Your task to perform on an android device: Search for Italian restaurants on Maps Image 0: 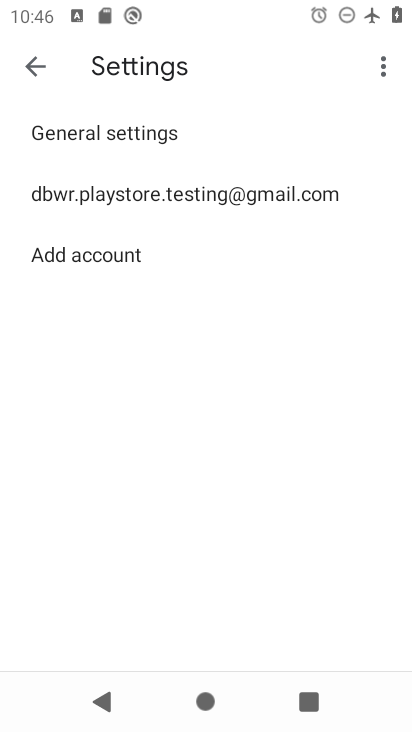
Step 0: press home button
Your task to perform on an android device: Search for Italian restaurants on Maps Image 1: 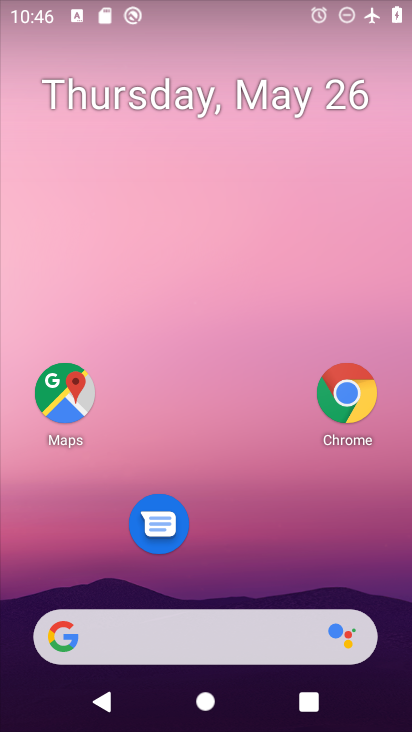
Step 1: click (69, 408)
Your task to perform on an android device: Search for Italian restaurants on Maps Image 2: 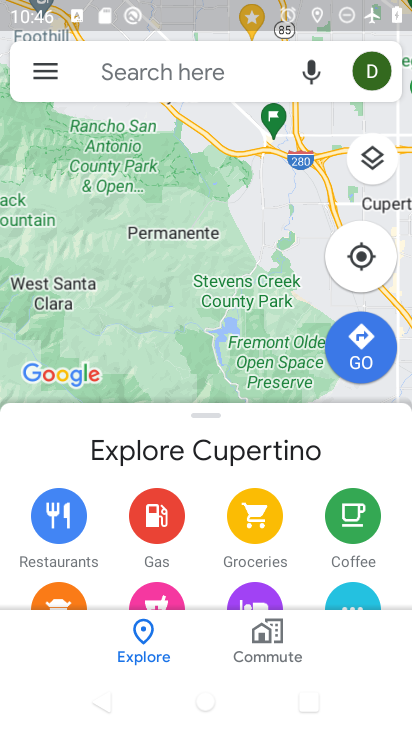
Step 2: click (189, 61)
Your task to perform on an android device: Search for Italian restaurants on Maps Image 3: 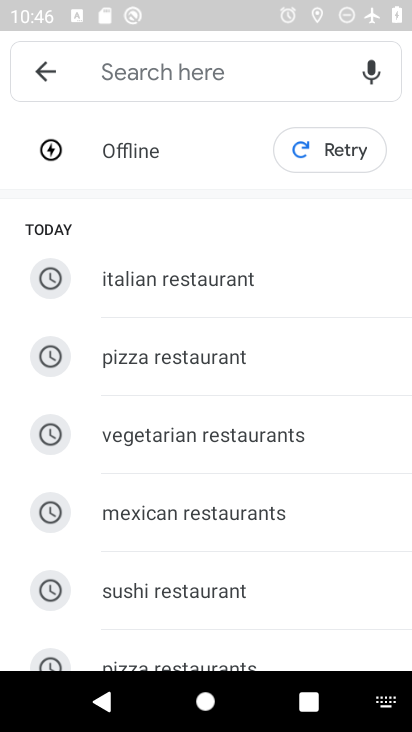
Step 3: click (196, 276)
Your task to perform on an android device: Search for Italian restaurants on Maps Image 4: 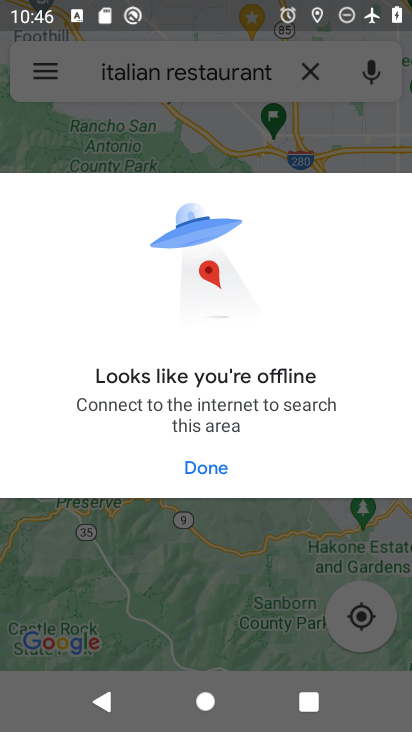
Step 4: task complete